Your task to perform on an android device: Go to calendar. Show me events next week Image 0: 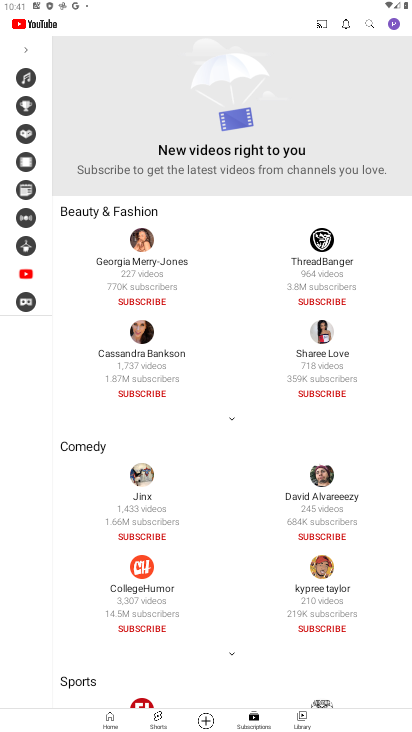
Step 0: task complete